Your task to perform on an android device: Search for the Nintendo Switch. Image 0: 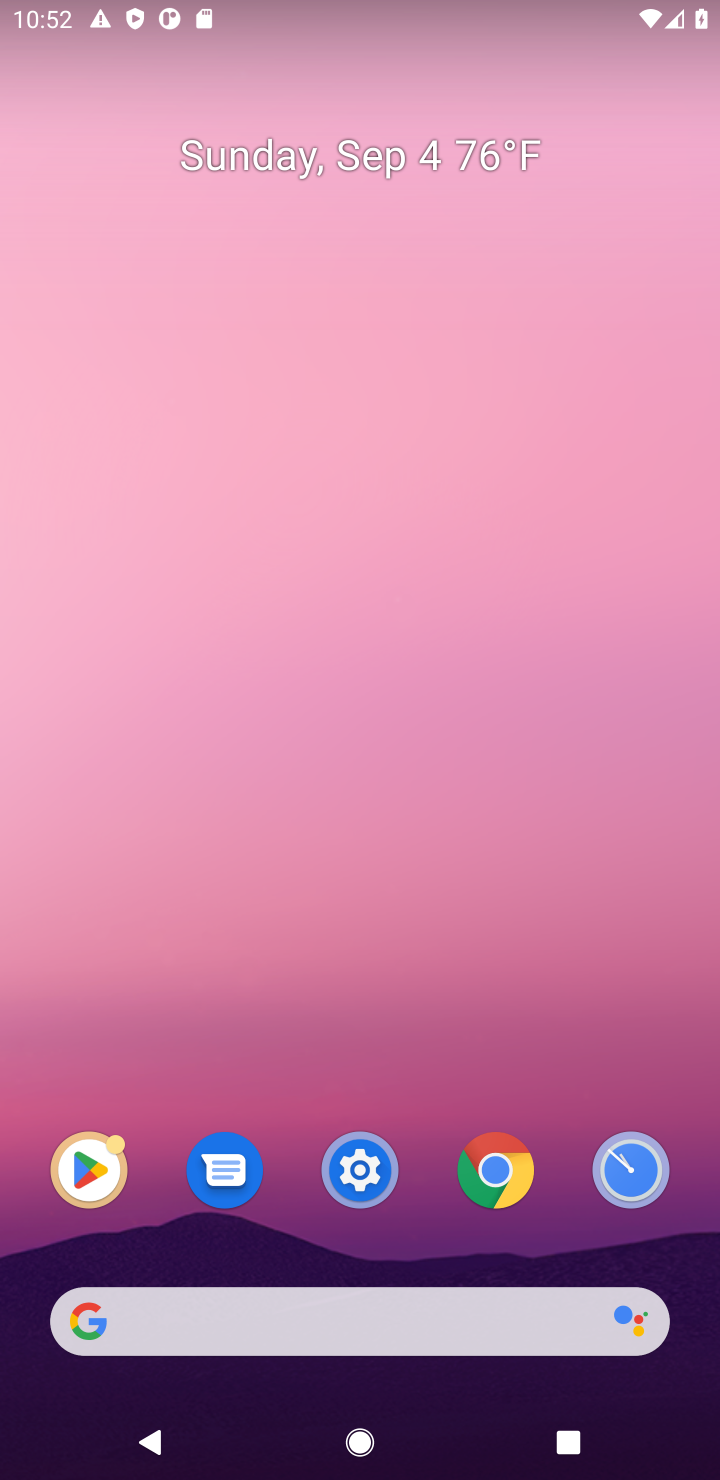
Step 0: click (348, 1334)
Your task to perform on an android device: Search for the Nintendo Switch. Image 1: 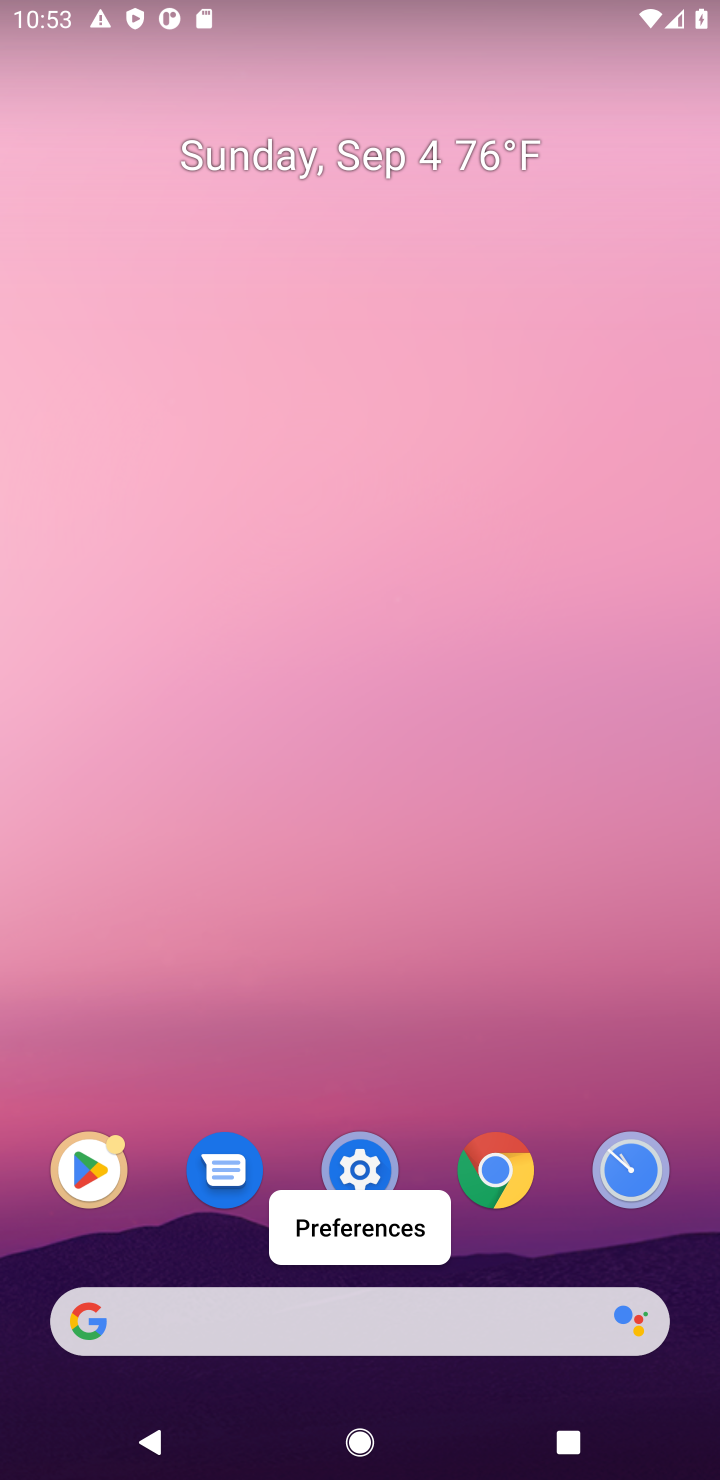
Step 1: click (428, 1331)
Your task to perform on an android device: Search for the Nintendo Switch. Image 2: 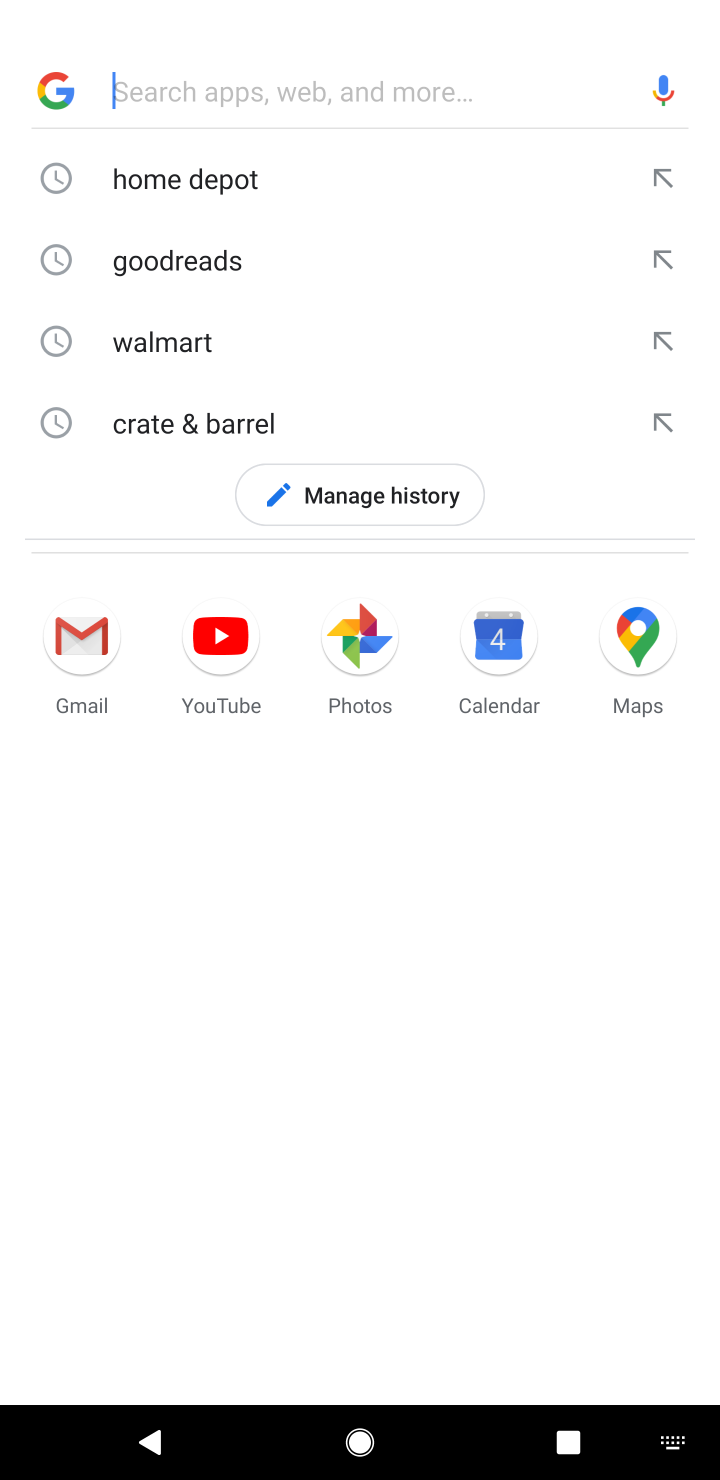
Step 2: type "Nintendo Switch."
Your task to perform on an android device: Search for the Nintendo Switch. Image 3: 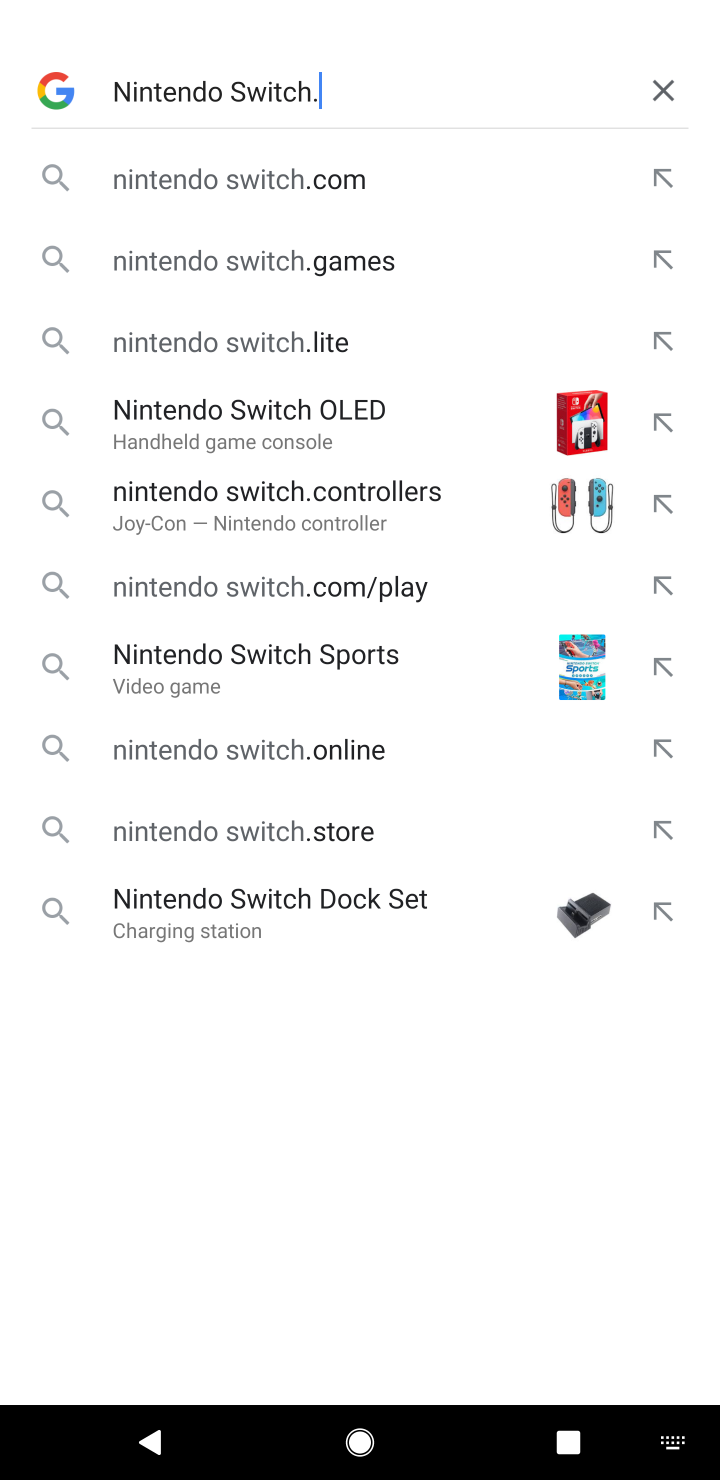
Step 3: click (248, 190)
Your task to perform on an android device: Search for the Nintendo Switch. Image 4: 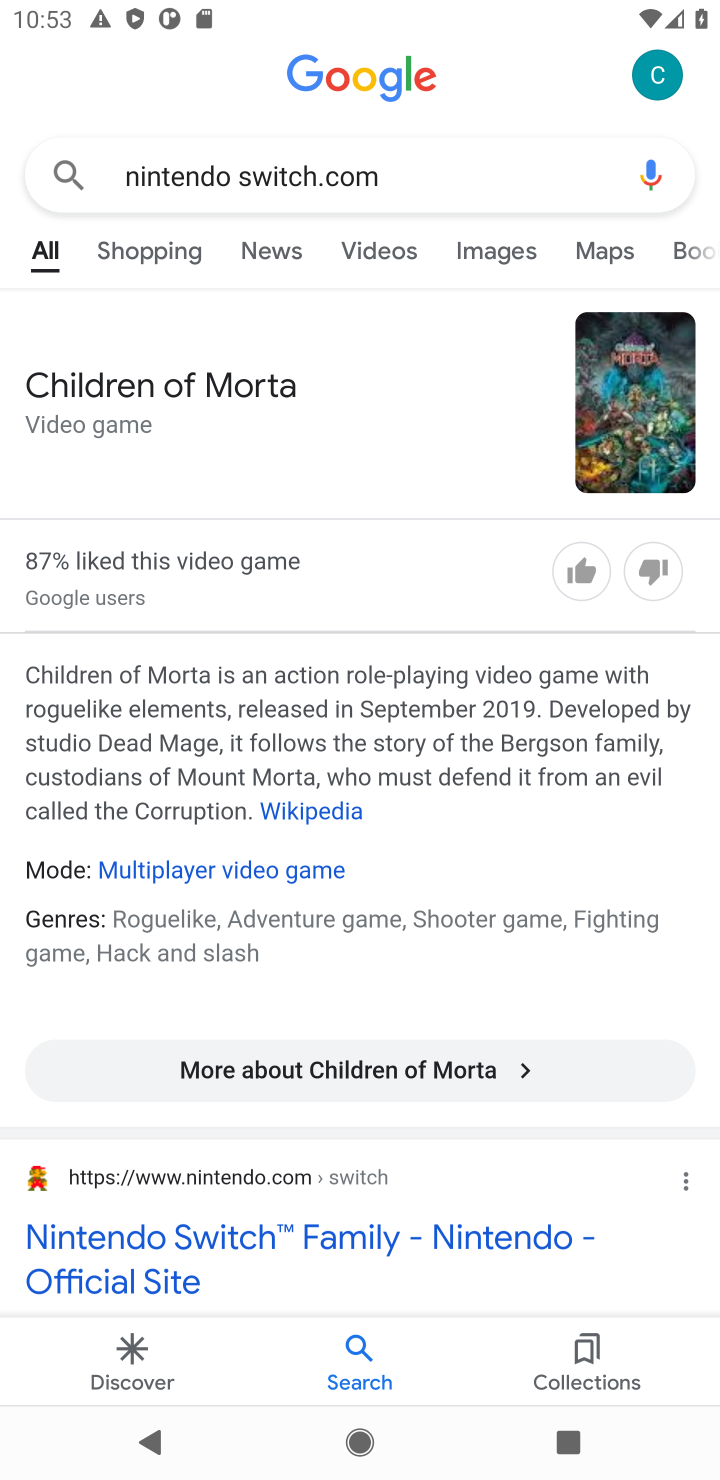
Step 4: click (336, 385)
Your task to perform on an android device: Search for the Nintendo Switch. Image 5: 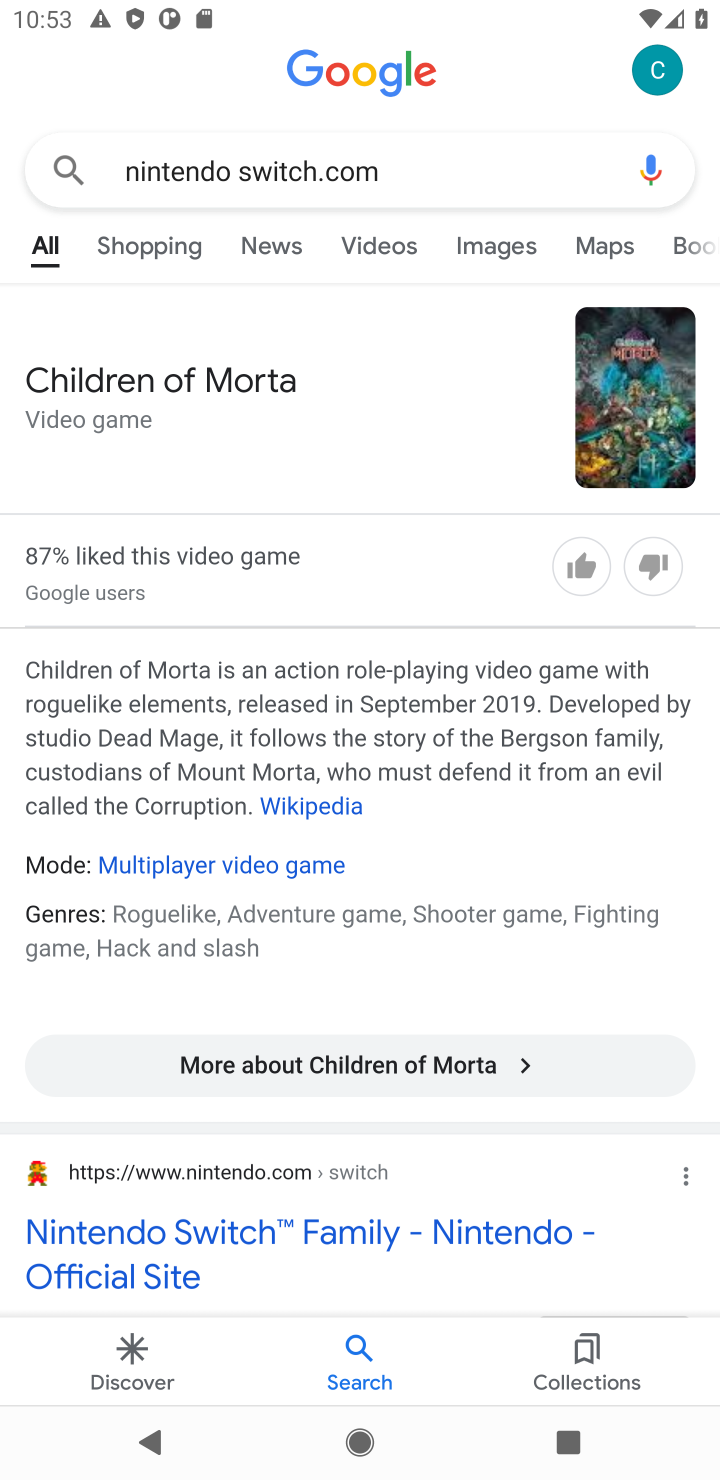
Step 5: drag from (355, 577) to (379, 502)
Your task to perform on an android device: Search for the Nintendo Switch. Image 6: 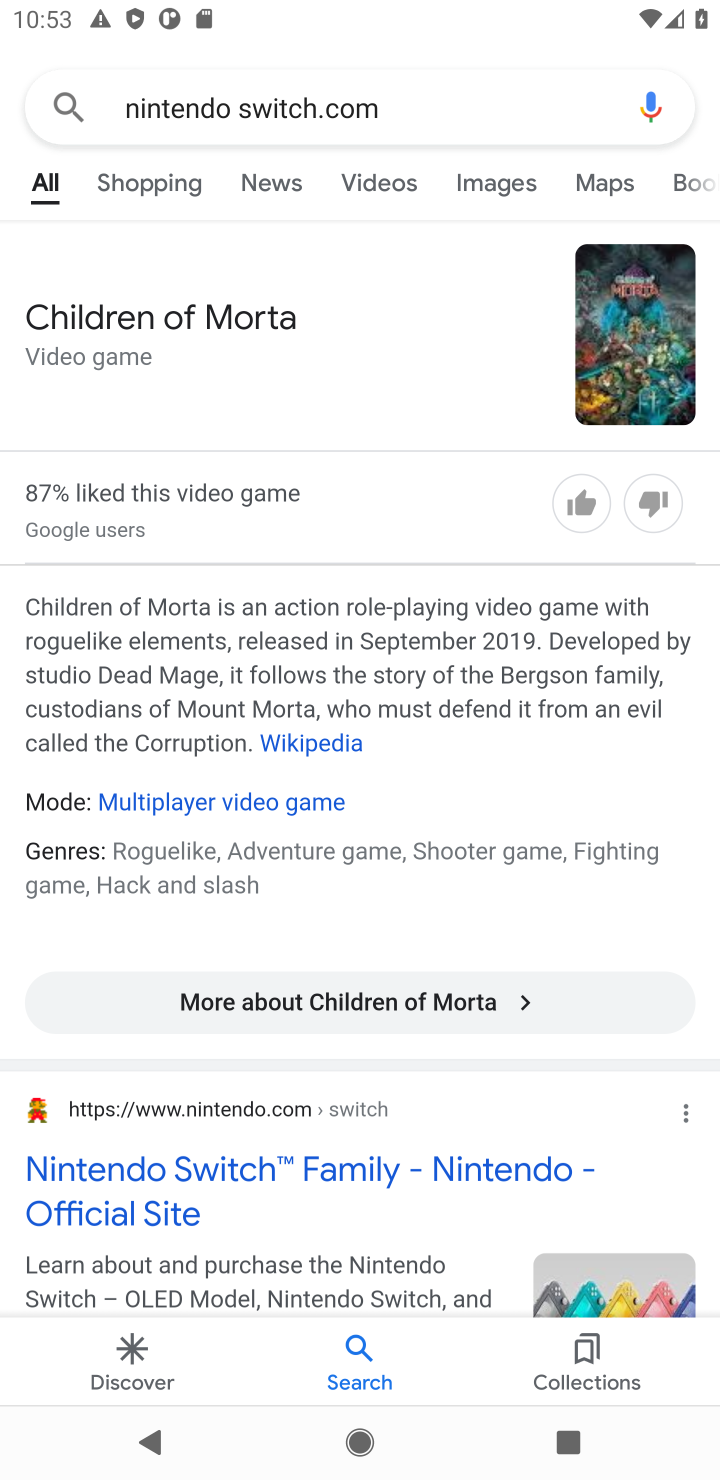
Step 6: drag from (399, 774) to (400, 457)
Your task to perform on an android device: Search for the Nintendo Switch. Image 7: 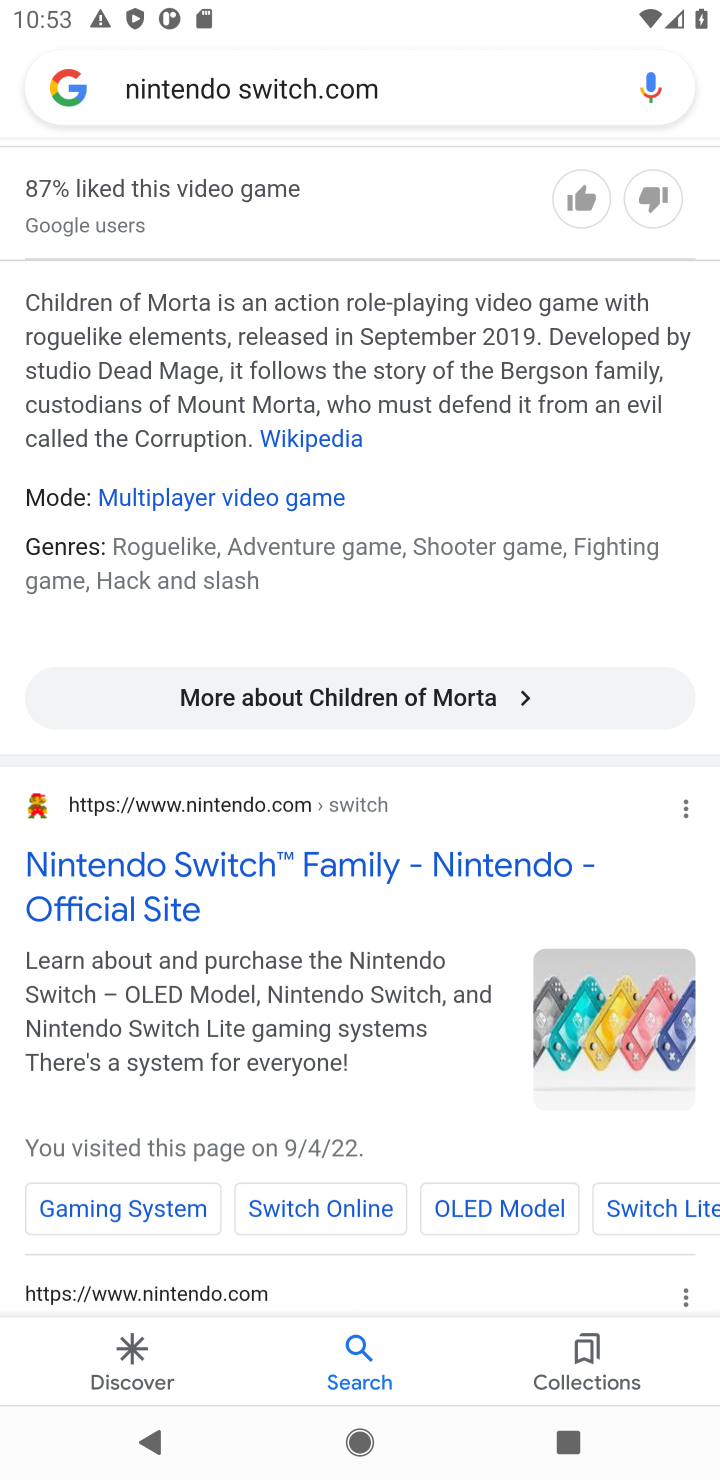
Step 7: drag from (345, 1129) to (335, 891)
Your task to perform on an android device: Search for the Nintendo Switch. Image 8: 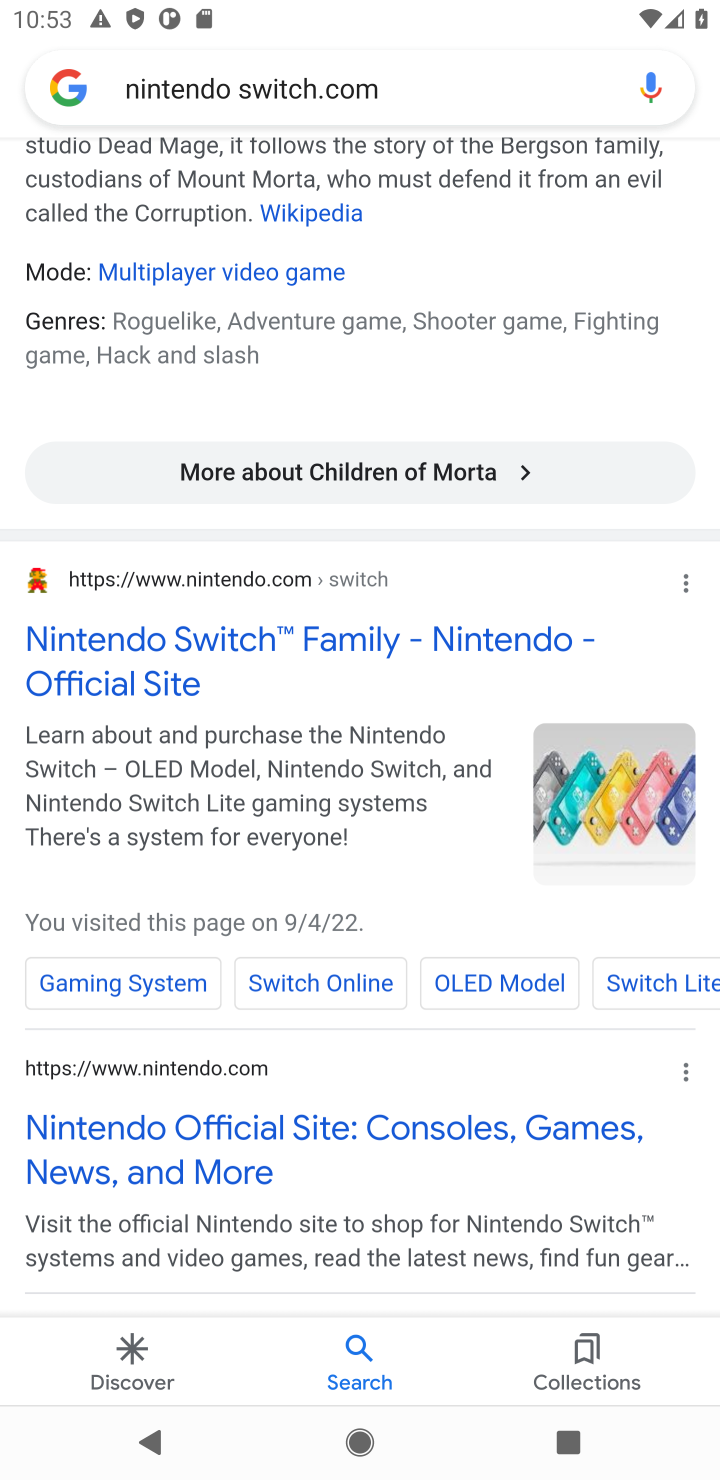
Step 8: click (157, 697)
Your task to perform on an android device: Search for the Nintendo Switch. Image 9: 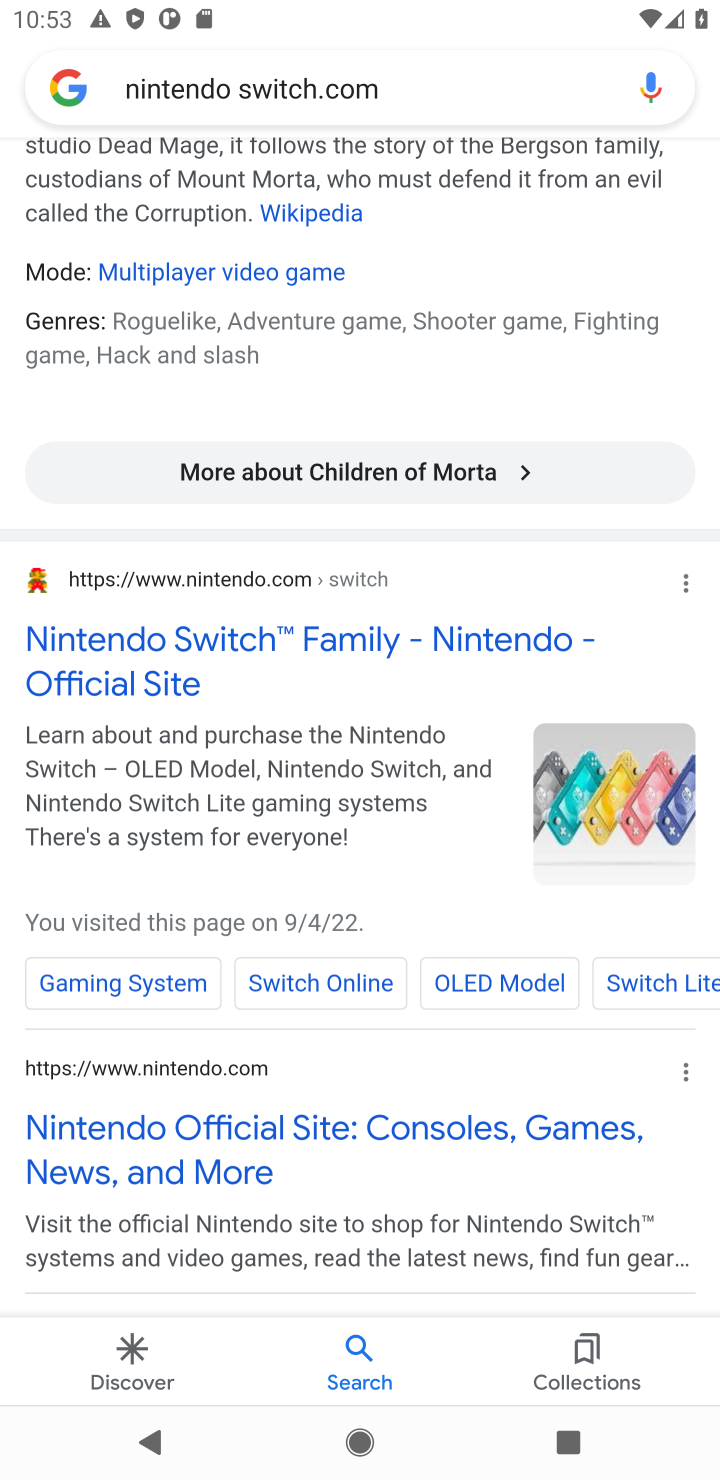
Step 9: click (186, 675)
Your task to perform on an android device: Search for the Nintendo Switch. Image 10: 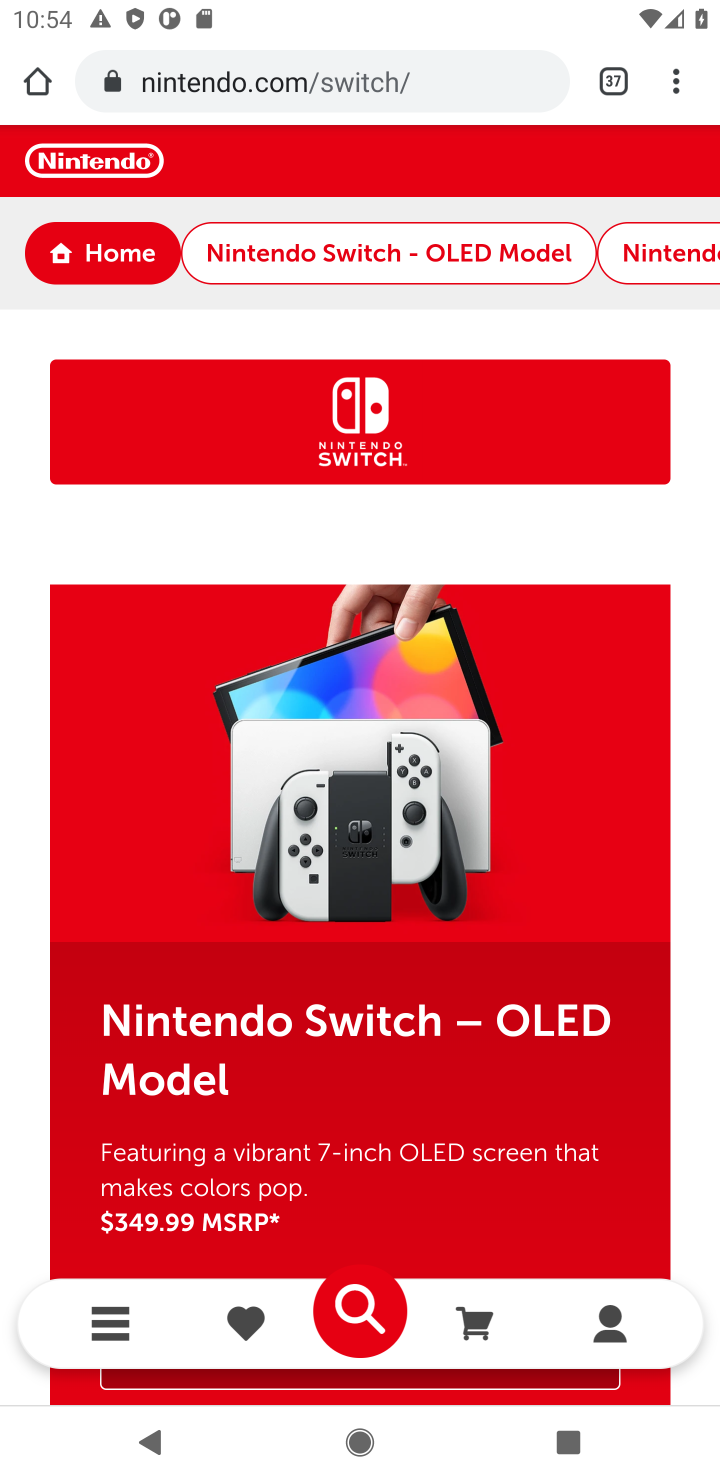
Step 10: task complete